Your task to perform on an android device: change the clock display to show seconds Image 0: 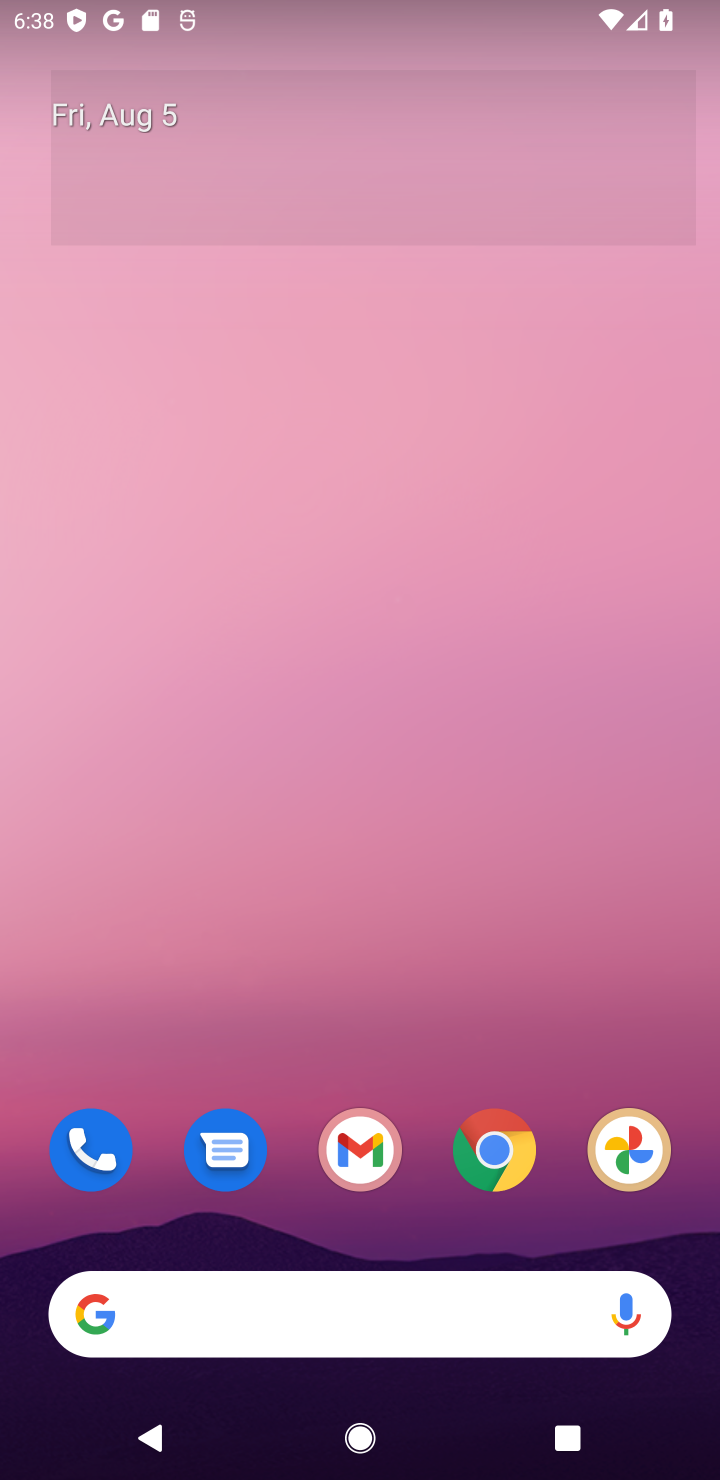
Step 0: drag from (380, 909) to (206, 160)
Your task to perform on an android device: change the clock display to show seconds Image 1: 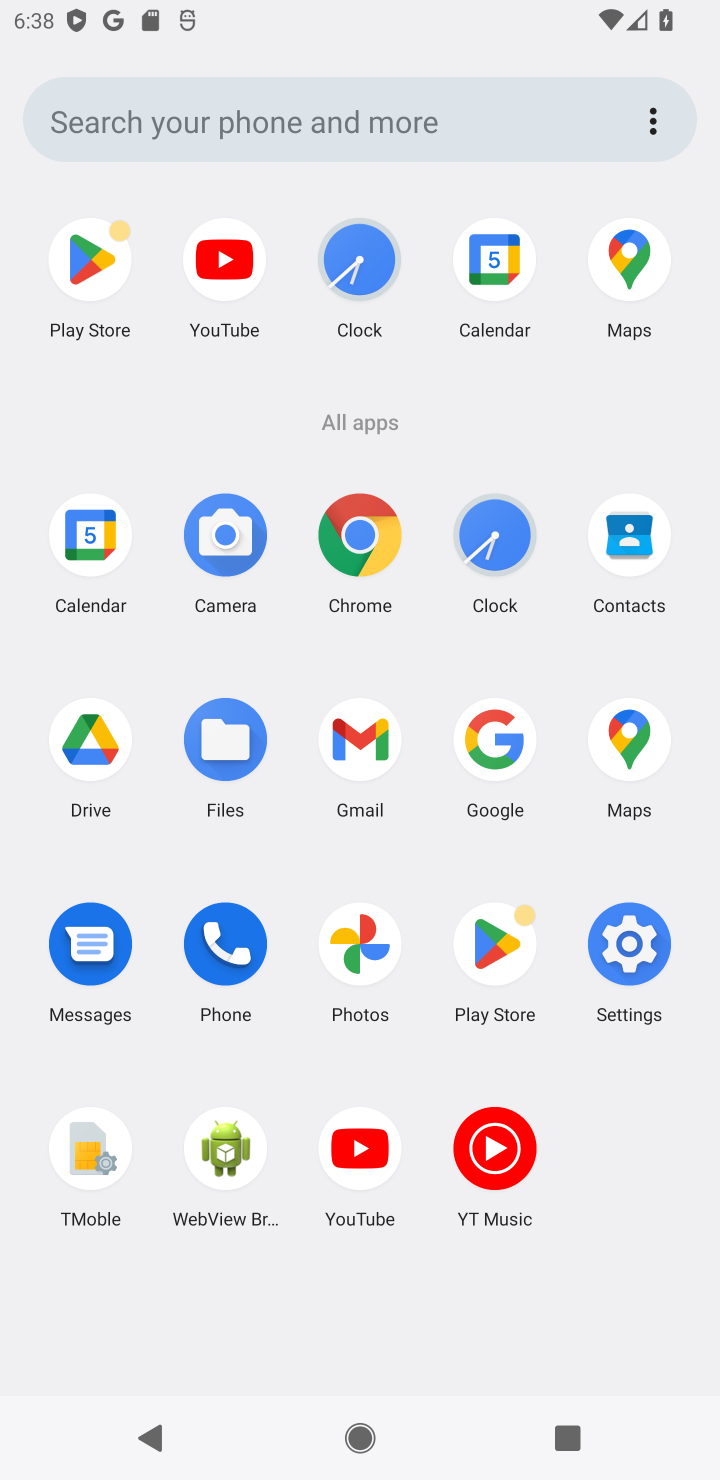
Step 1: click (508, 553)
Your task to perform on an android device: change the clock display to show seconds Image 2: 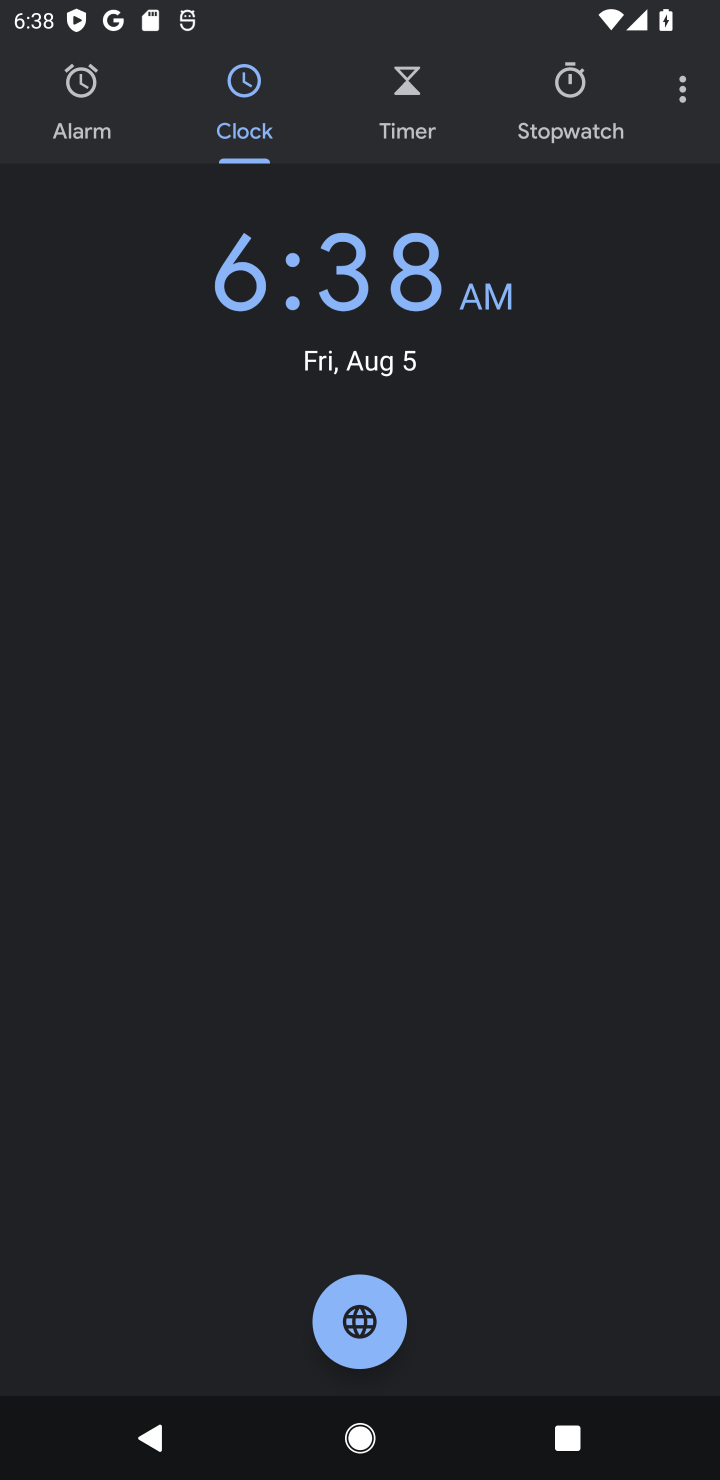
Step 2: task complete